Your task to perform on an android device: turn on location history Image 0: 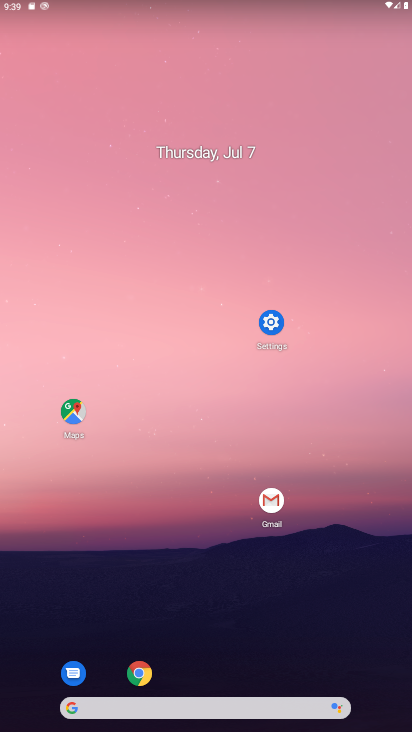
Step 0: click (270, 330)
Your task to perform on an android device: turn on location history Image 1: 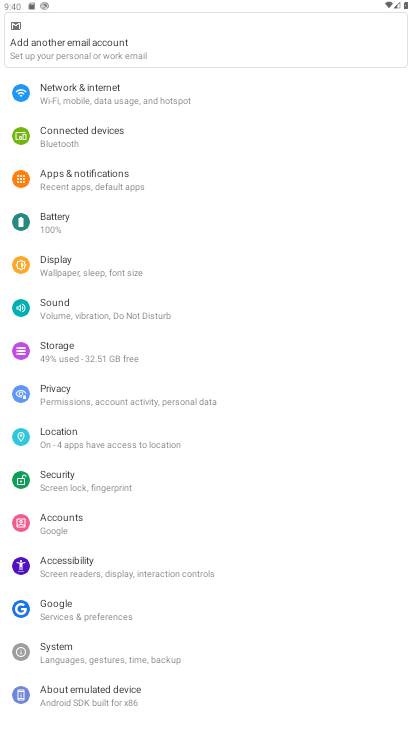
Step 1: click (52, 440)
Your task to perform on an android device: turn on location history Image 2: 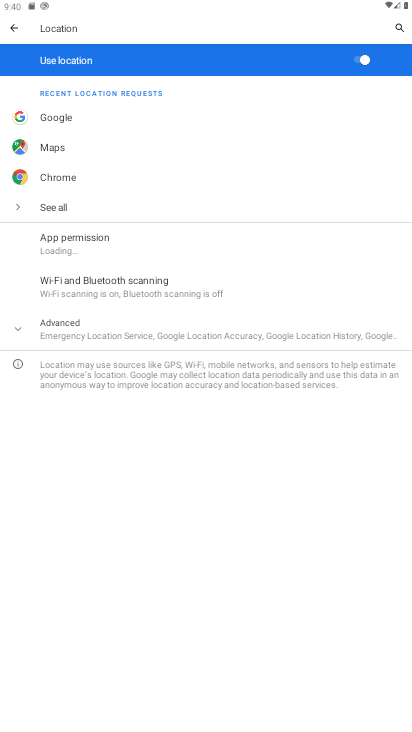
Step 2: click (19, 325)
Your task to perform on an android device: turn on location history Image 3: 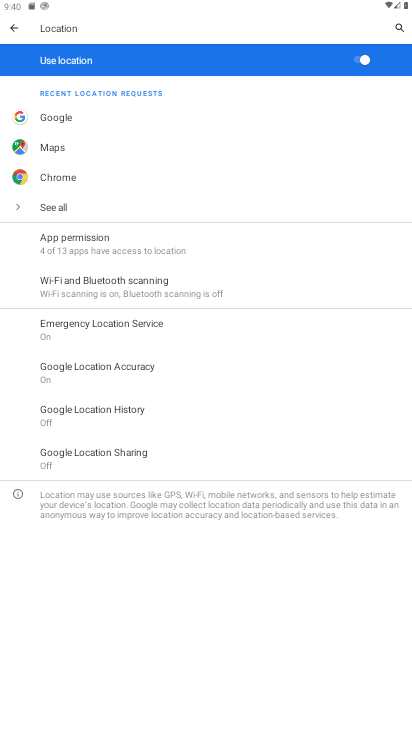
Step 3: click (112, 406)
Your task to perform on an android device: turn on location history Image 4: 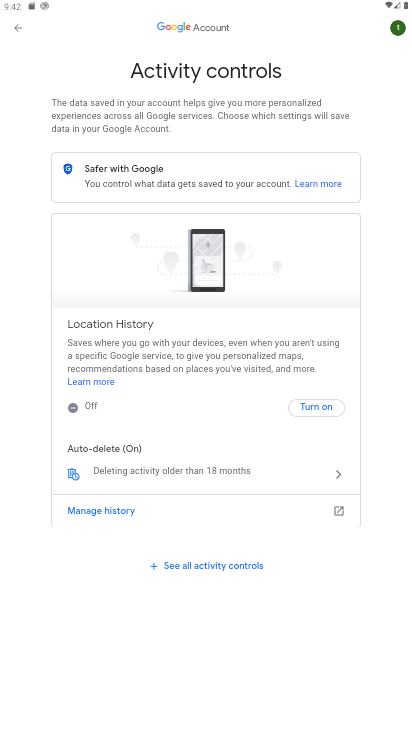
Step 4: click (311, 402)
Your task to perform on an android device: turn on location history Image 5: 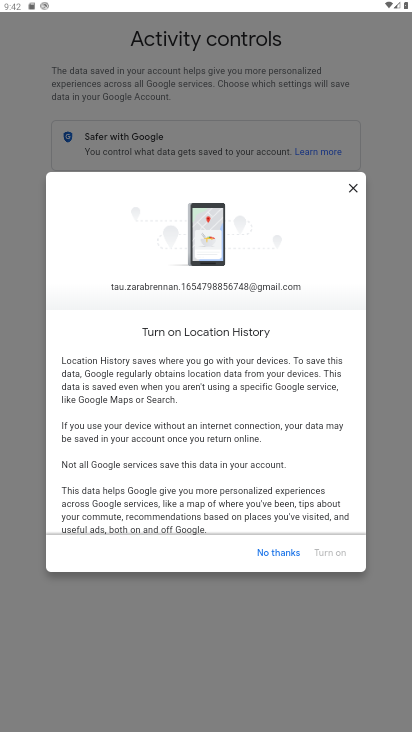
Step 5: drag from (275, 500) to (268, 206)
Your task to perform on an android device: turn on location history Image 6: 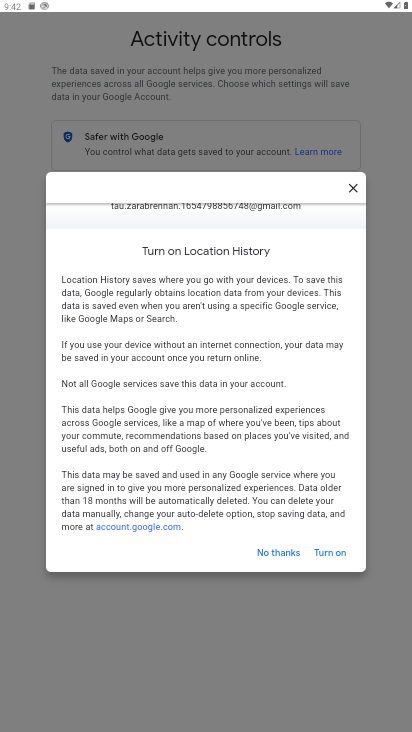
Step 6: drag from (239, 492) to (251, 225)
Your task to perform on an android device: turn on location history Image 7: 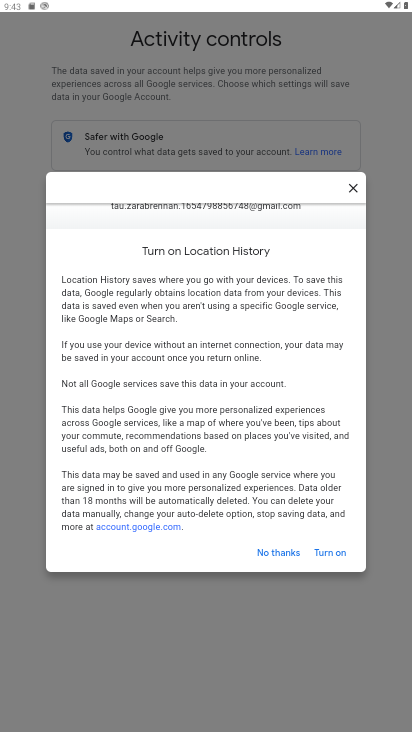
Step 7: drag from (258, 492) to (234, 222)
Your task to perform on an android device: turn on location history Image 8: 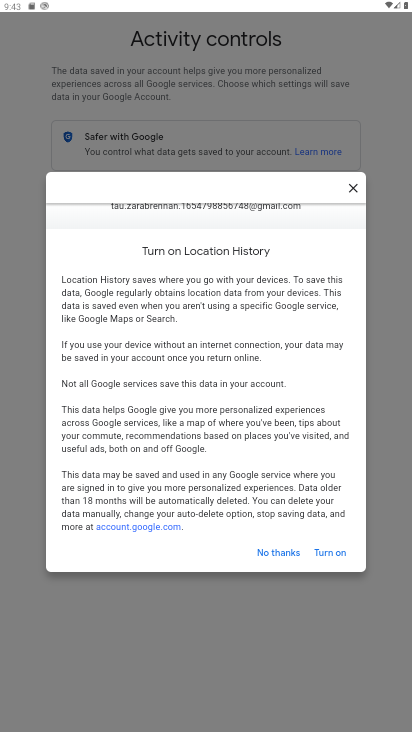
Step 8: click (320, 554)
Your task to perform on an android device: turn on location history Image 9: 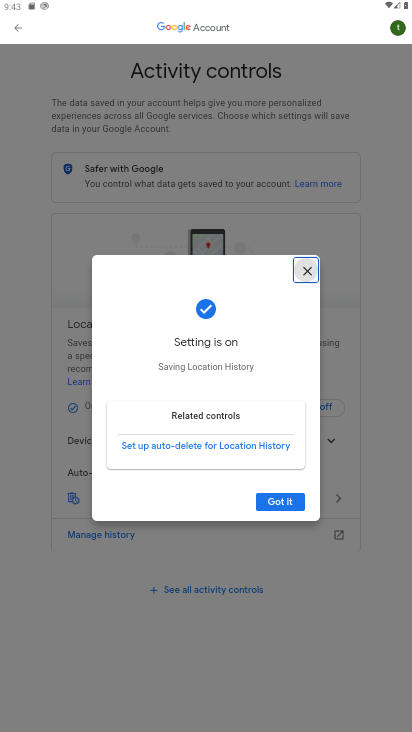
Step 9: click (293, 503)
Your task to perform on an android device: turn on location history Image 10: 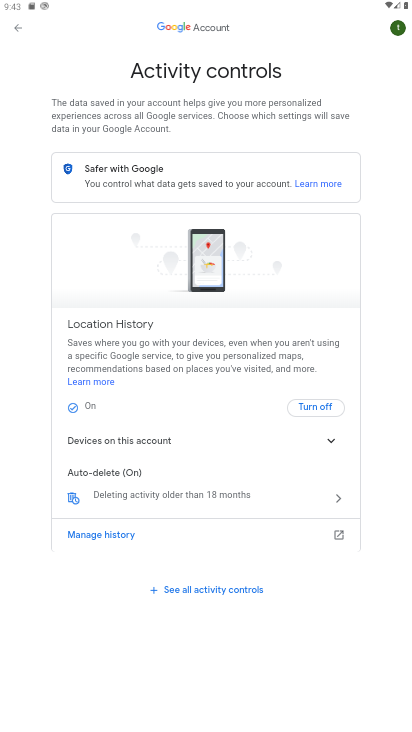
Step 10: task complete